Your task to perform on an android device: turn on priority inbox in the gmail app Image 0: 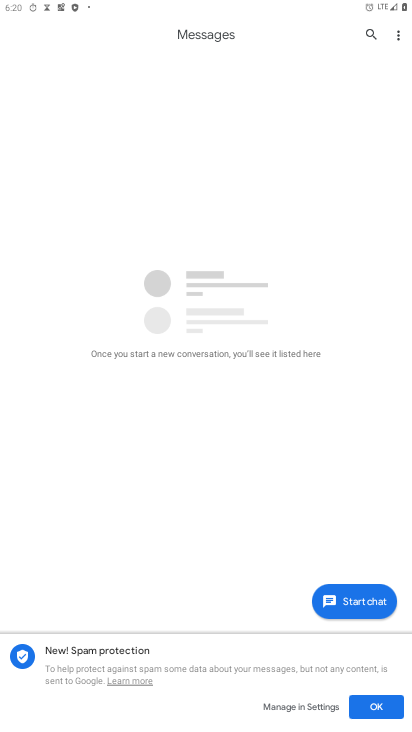
Step 0: click (74, 424)
Your task to perform on an android device: turn on priority inbox in the gmail app Image 1: 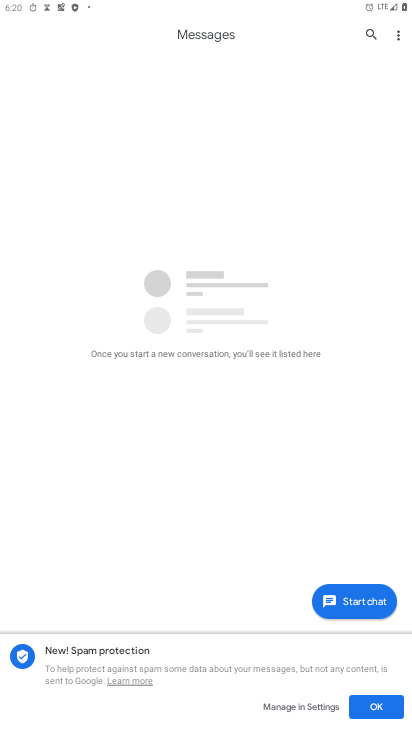
Step 1: press home button
Your task to perform on an android device: turn on priority inbox in the gmail app Image 2: 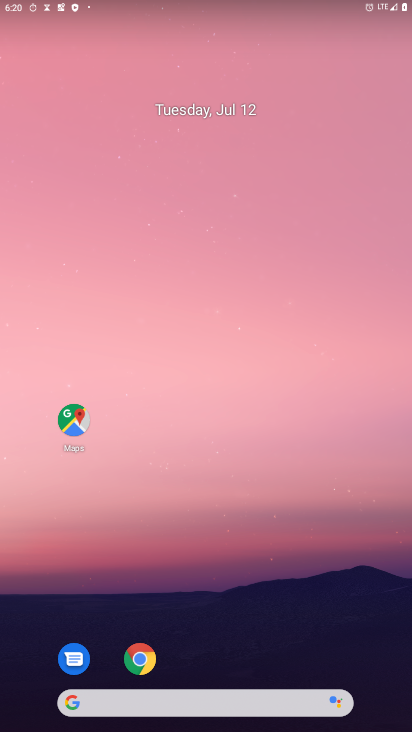
Step 2: drag from (195, 647) to (193, 165)
Your task to perform on an android device: turn on priority inbox in the gmail app Image 3: 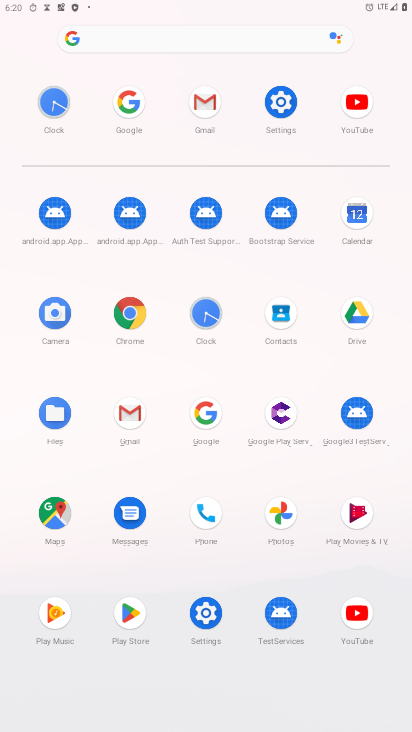
Step 3: click (210, 107)
Your task to perform on an android device: turn on priority inbox in the gmail app Image 4: 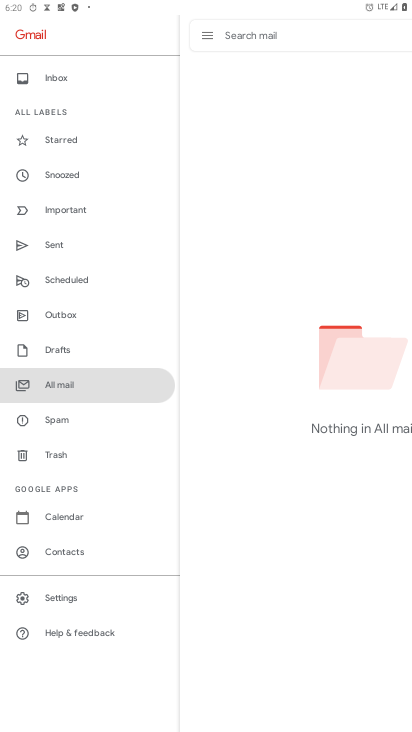
Step 4: click (78, 602)
Your task to perform on an android device: turn on priority inbox in the gmail app Image 5: 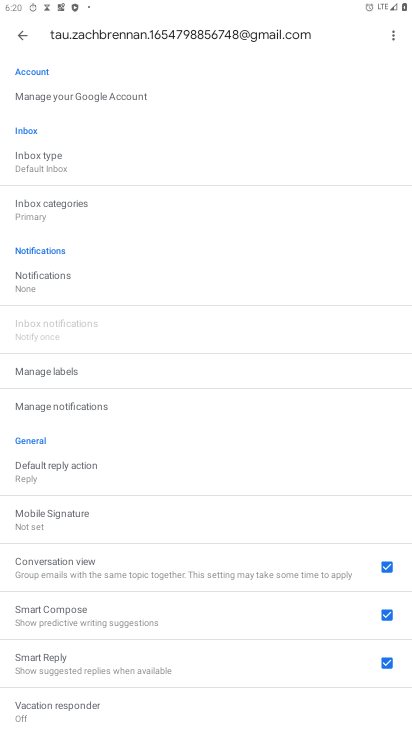
Step 5: click (53, 160)
Your task to perform on an android device: turn on priority inbox in the gmail app Image 6: 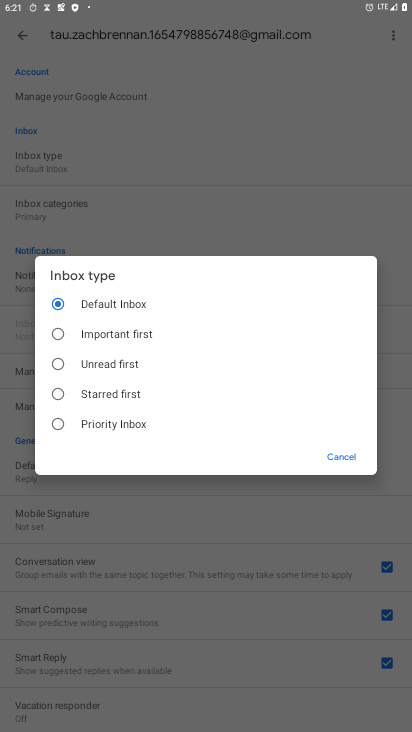
Step 6: click (52, 431)
Your task to perform on an android device: turn on priority inbox in the gmail app Image 7: 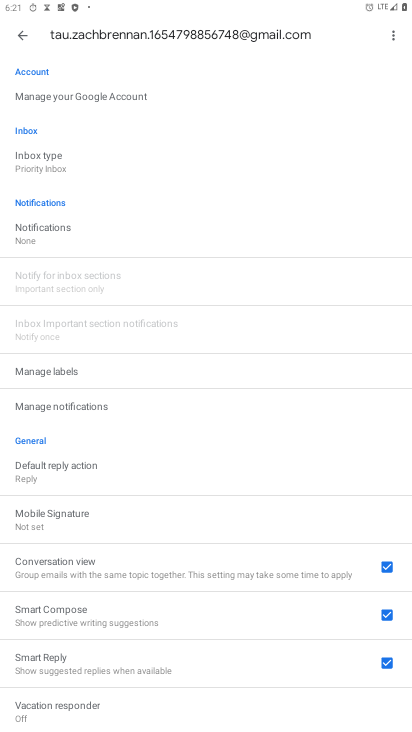
Step 7: task complete